Your task to perform on an android device: Open the map Image 0: 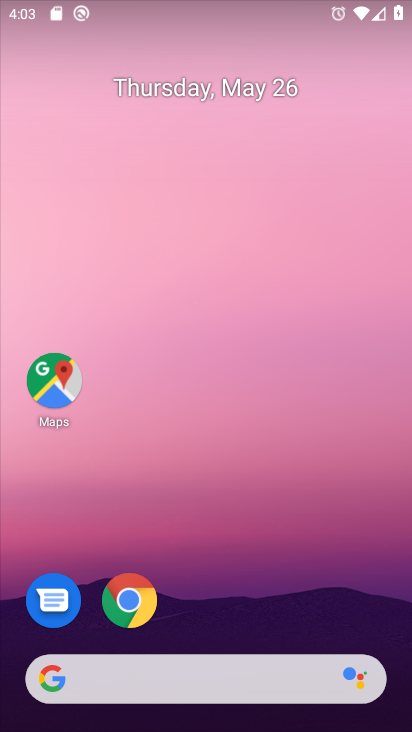
Step 0: click (339, 166)
Your task to perform on an android device: Open the map Image 1: 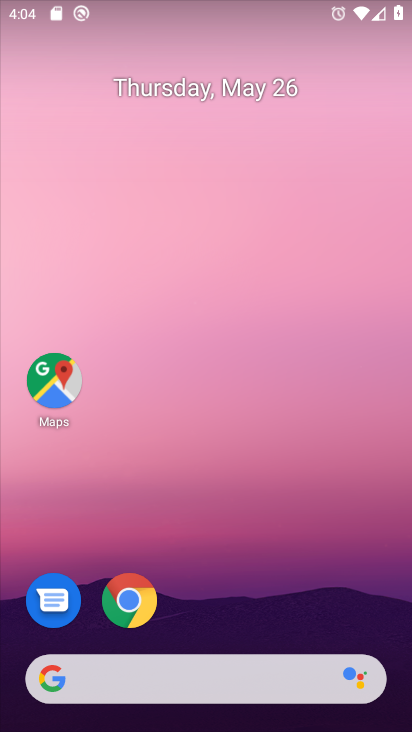
Step 1: click (60, 374)
Your task to perform on an android device: Open the map Image 2: 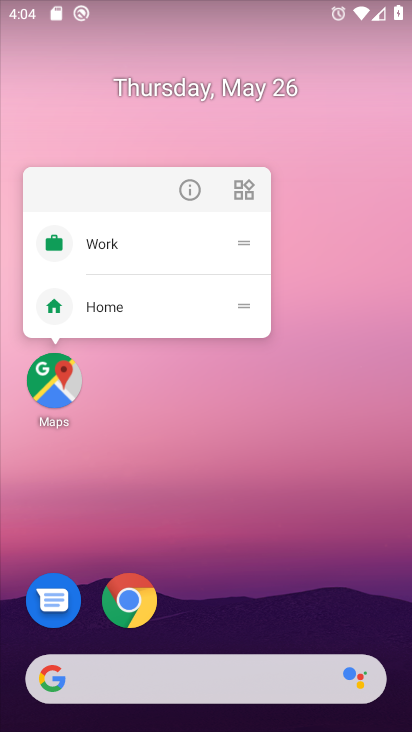
Step 2: click (57, 371)
Your task to perform on an android device: Open the map Image 3: 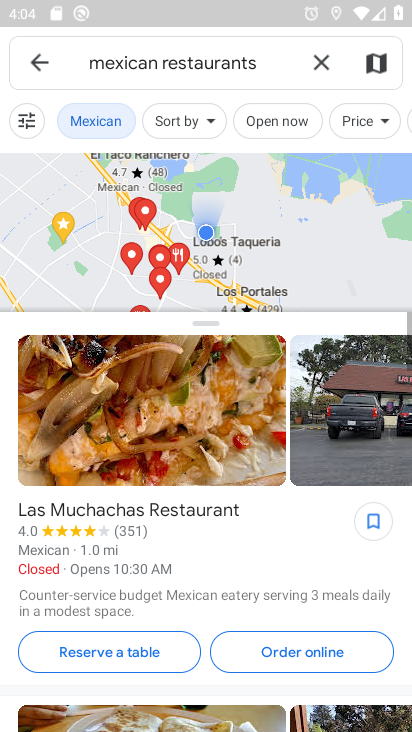
Step 3: click (50, 62)
Your task to perform on an android device: Open the map Image 4: 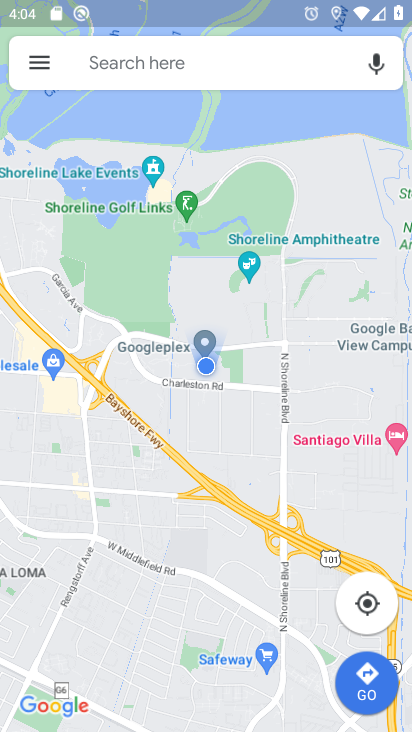
Step 4: task complete